Your task to perform on an android device: Open the calendar and show me this week's events Image 0: 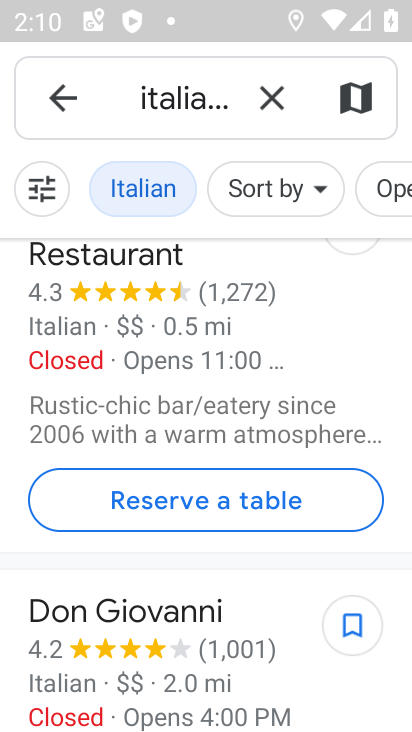
Step 0: drag from (144, 417) to (204, 319)
Your task to perform on an android device: Open the calendar and show me this week's events Image 1: 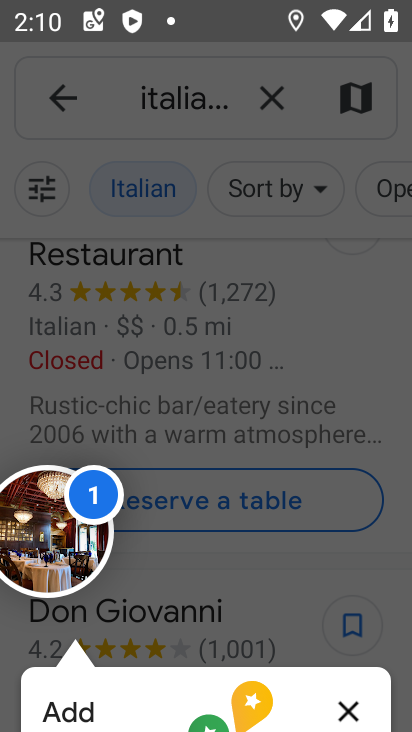
Step 1: press home button
Your task to perform on an android device: Open the calendar and show me this week's events Image 2: 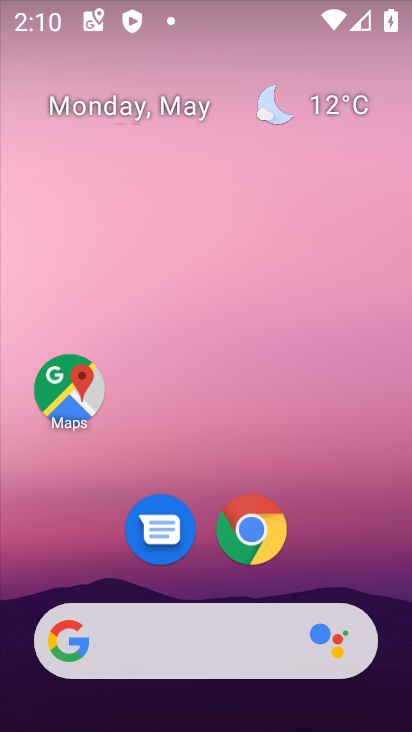
Step 2: drag from (394, 607) to (298, 49)
Your task to perform on an android device: Open the calendar and show me this week's events Image 3: 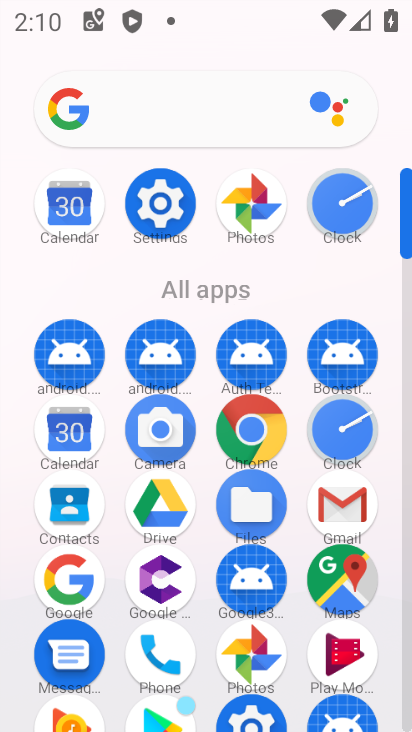
Step 3: click (410, 664)
Your task to perform on an android device: Open the calendar and show me this week's events Image 4: 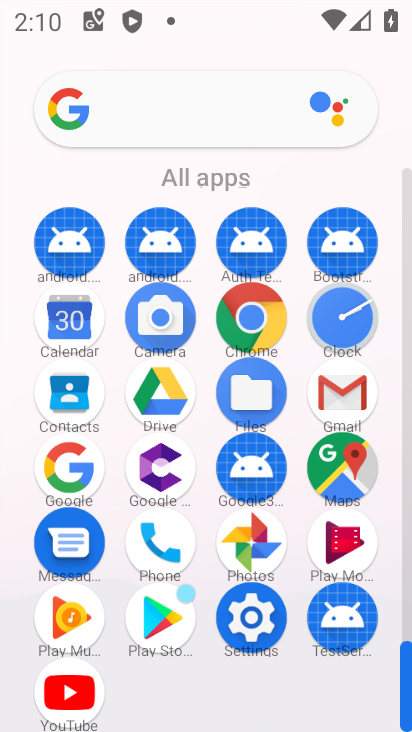
Step 4: click (74, 320)
Your task to perform on an android device: Open the calendar and show me this week's events Image 5: 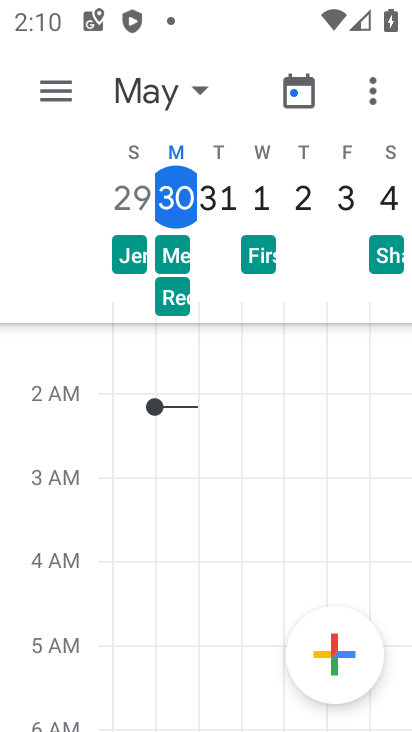
Step 5: task complete